Your task to perform on an android device: check battery use Image 0: 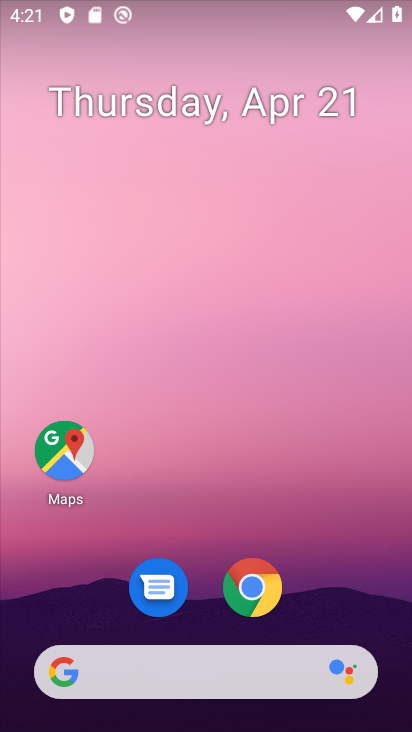
Step 0: drag from (225, 158) to (256, 48)
Your task to perform on an android device: check battery use Image 1: 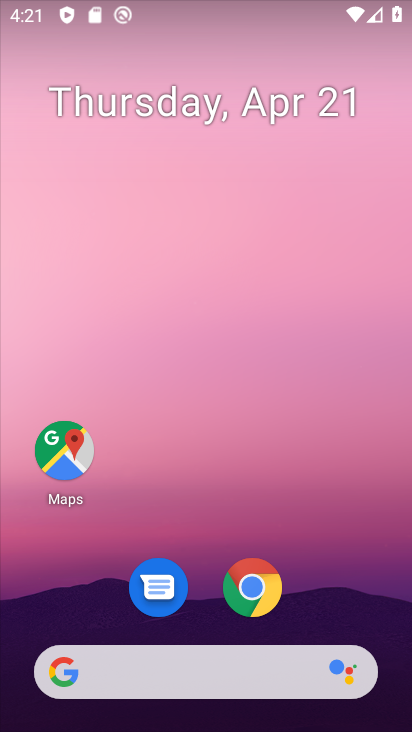
Step 1: drag from (207, 471) to (295, 37)
Your task to perform on an android device: check battery use Image 2: 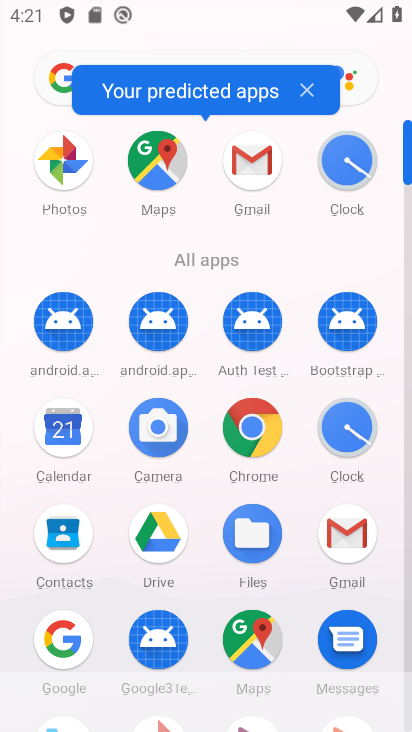
Step 2: drag from (233, 424) to (304, 165)
Your task to perform on an android device: check battery use Image 3: 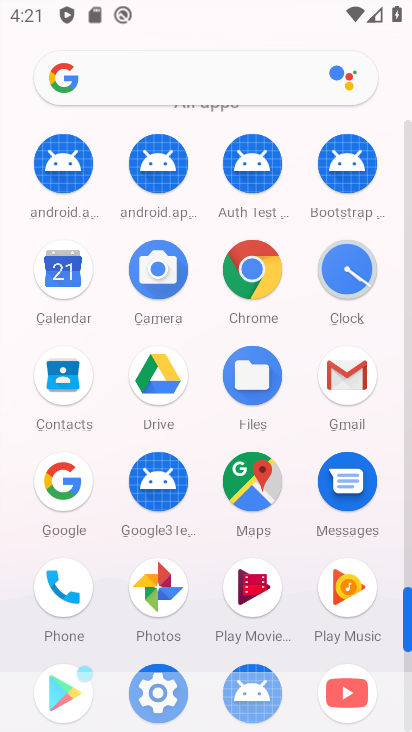
Step 3: click (173, 703)
Your task to perform on an android device: check battery use Image 4: 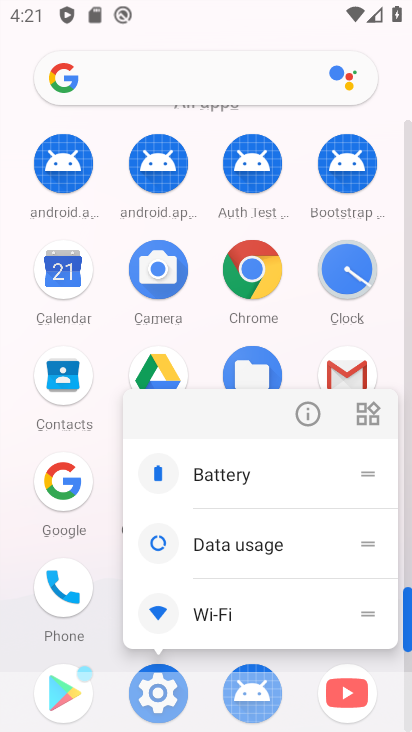
Step 4: click (156, 696)
Your task to perform on an android device: check battery use Image 5: 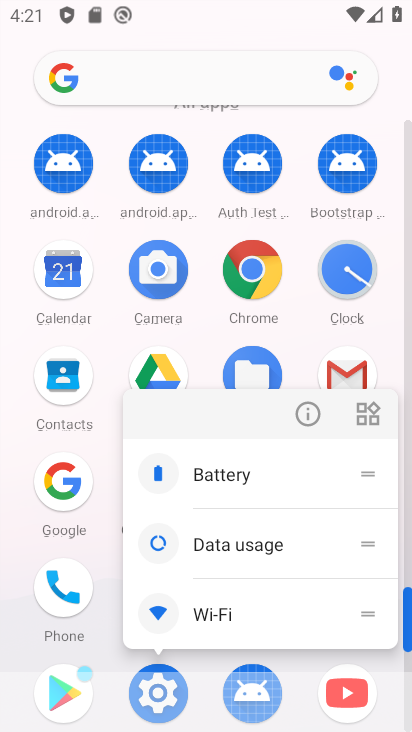
Step 5: click (156, 687)
Your task to perform on an android device: check battery use Image 6: 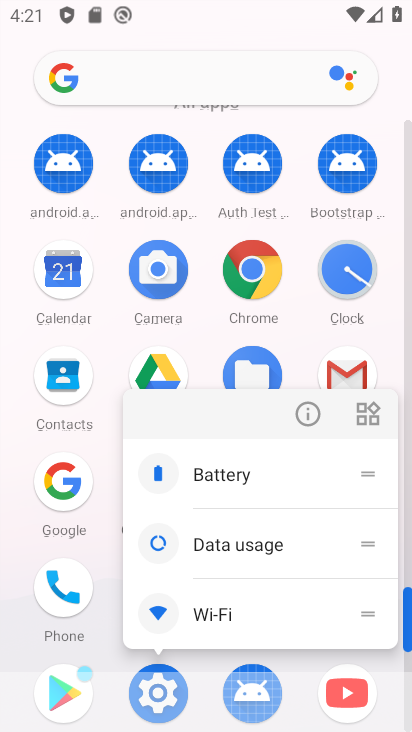
Step 6: click (158, 690)
Your task to perform on an android device: check battery use Image 7: 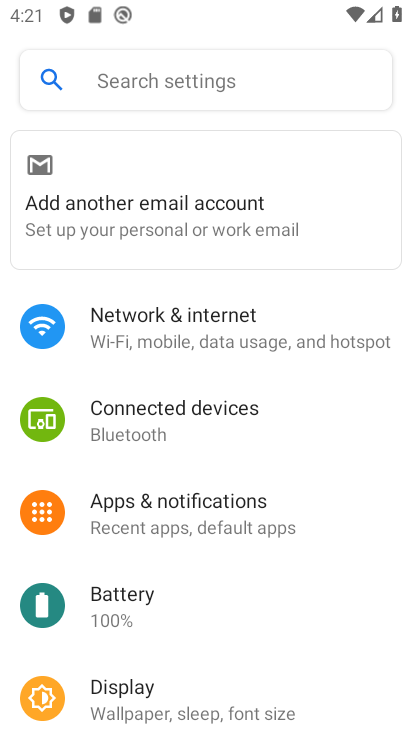
Step 7: click (177, 604)
Your task to perform on an android device: check battery use Image 8: 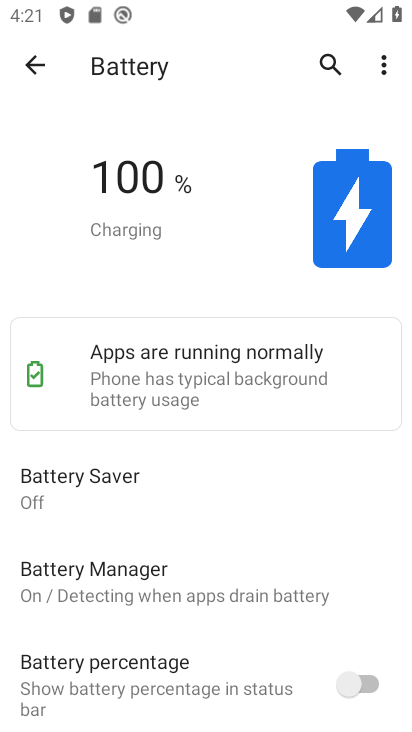
Step 8: click (376, 61)
Your task to perform on an android device: check battery use Image 9: 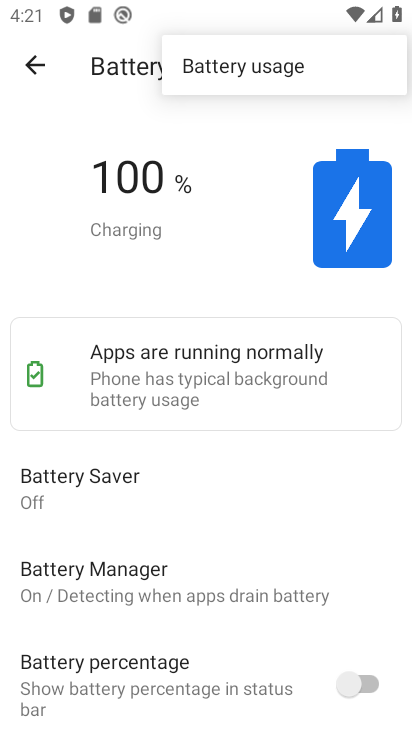
Step 9: click (361, 80)
Your task to perform on an android device: check battery use Image 10: 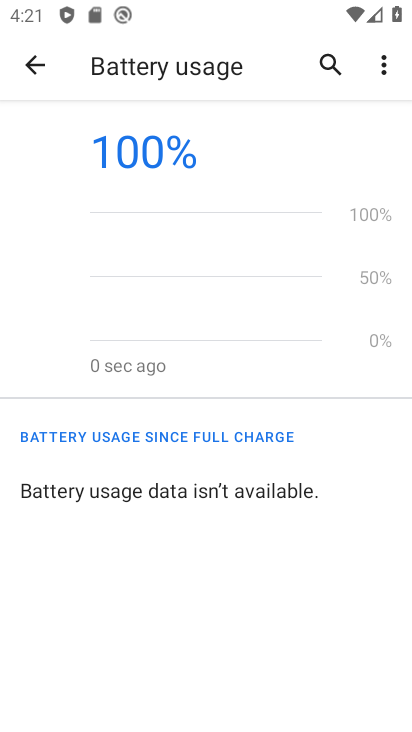
Step 10: task complete